Your task to perform on an android device: Go to notification settings Image 0: 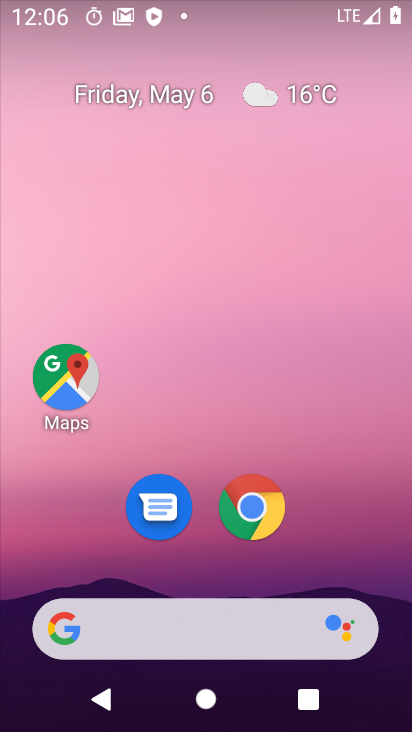
Step 0: drag from (228, 727) to (226, 119)
Your task to perform on an android device: Go to notification settings Image 1: 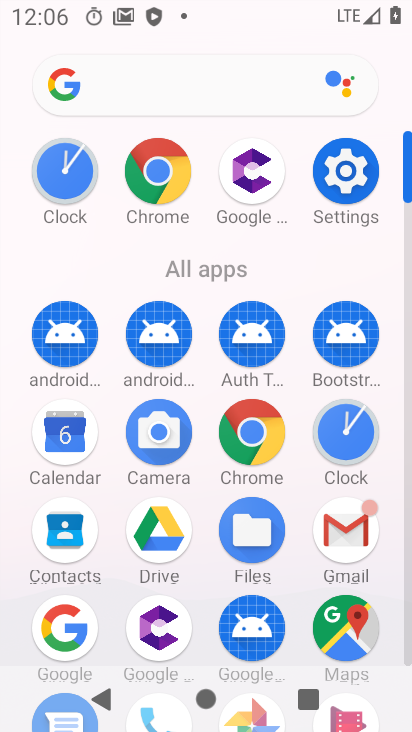
Step 1: click (338, 171)
Your task to perform on an android device: Go to notification settings Image 2: 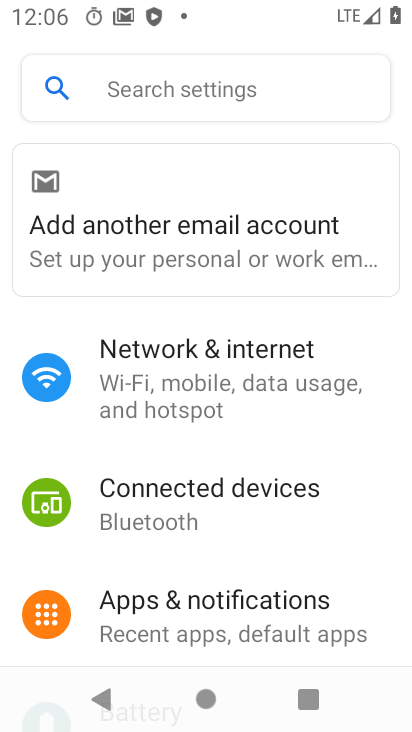
Step 2: click (167, 601)
Your task to perform on an android device: Go to notification settings Image 3: 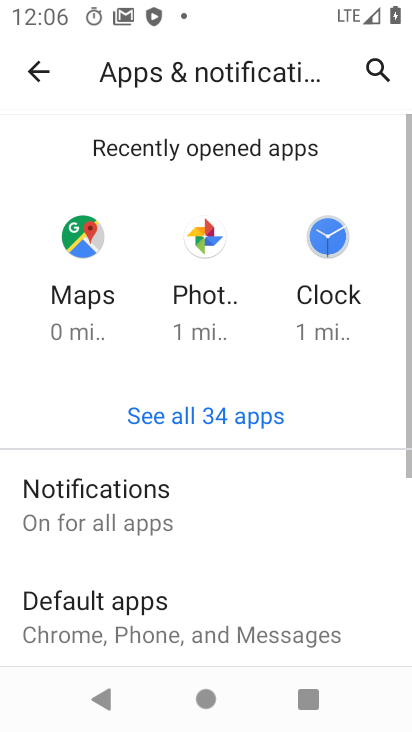
Step 3: click (78, 500)
Your task to perform on an android device: Go to notification settings Image 4: 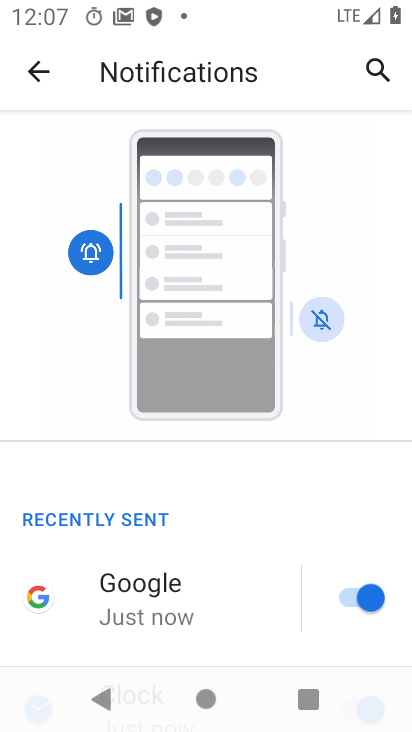
Step 4: task complete